Your task to perform on an android device: Toggle the flashlight Image 0: 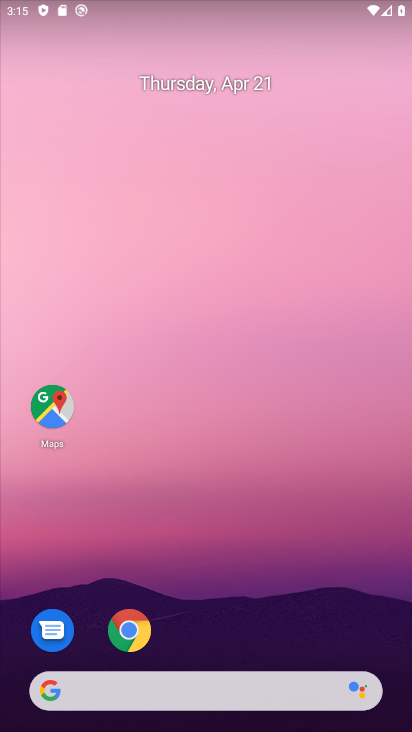
Step 0: drag from (181, 70) to (185, 556)
Your task to perform on an android device: Toggle the flashlight Image 1: 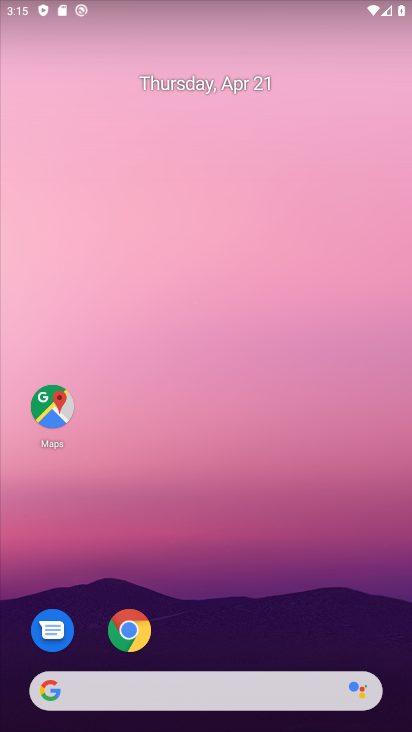
Step 1: task complete